Your task to perform on an android device: add a contact Image 0: 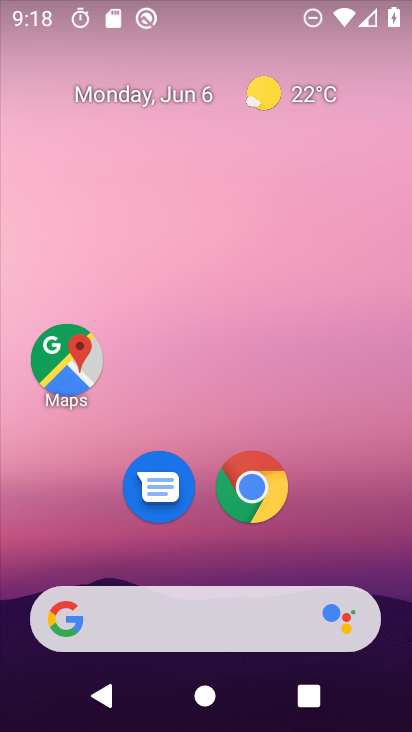
Step 0: drag from (401, 609) to (333, 36)
Your task to perform on an android device: add a contact Image 1: 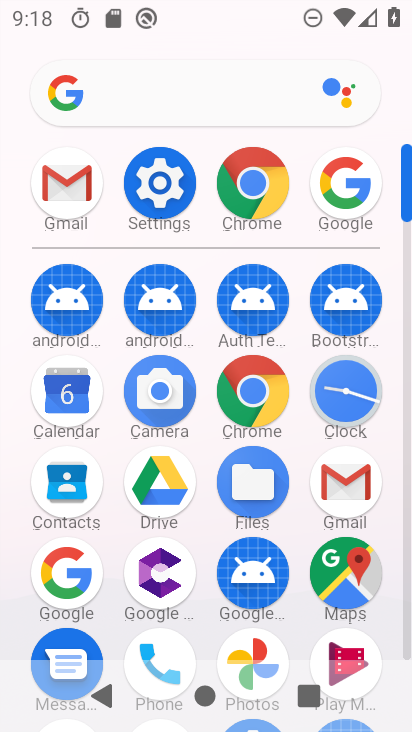
Step 1: click (66, 500)
Your task to perform on an android device: add a contact Image 2: 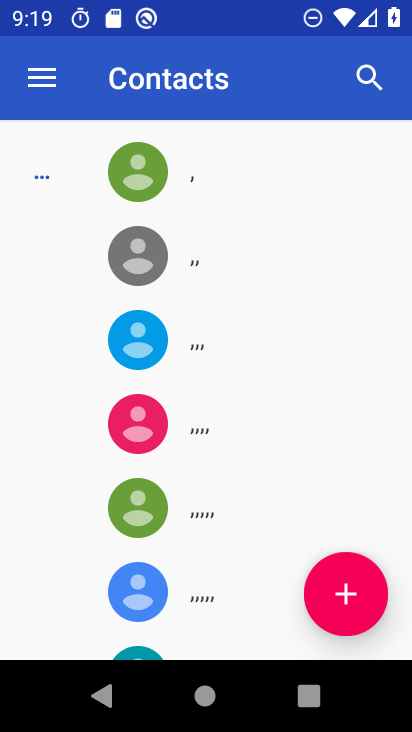
Step 2: click (347, 569)
Your task to perform on an android device: add a contact Image 3: 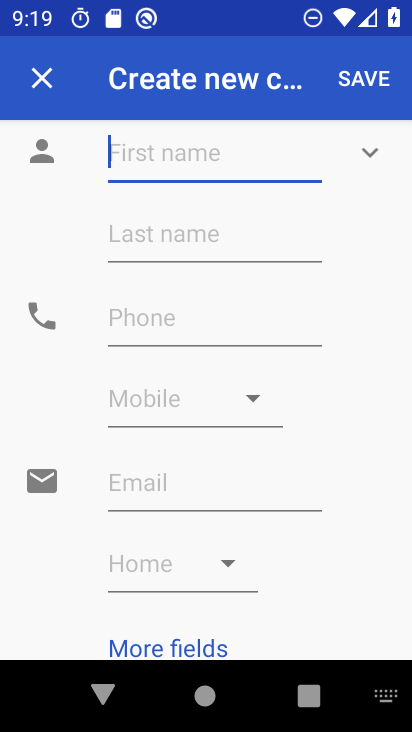
Step 3: type "usssss"
Your task to perform on an android device: add a contact Image 4: 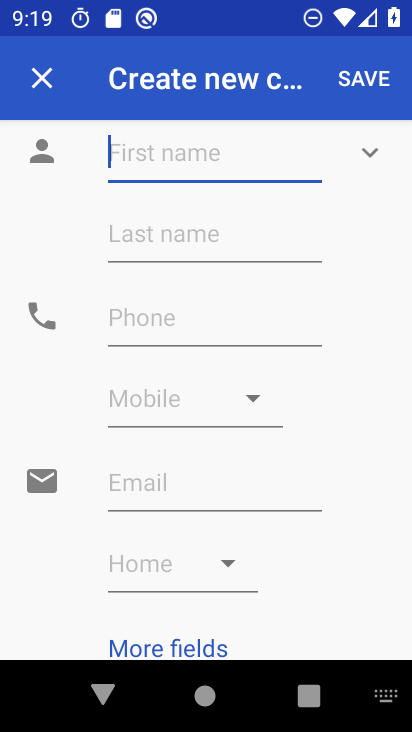
Step 4: click (360, 80)
Your task to perform on an android device: add a contact Image 5: 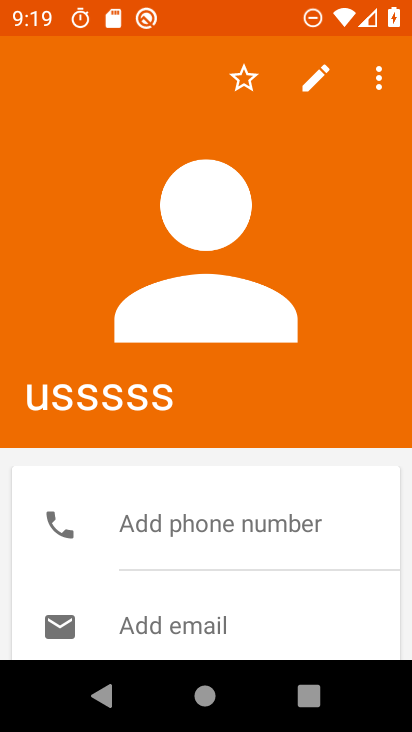
Step 5: task complete